Your task to perform on an android device: turn on wifi Image 0: 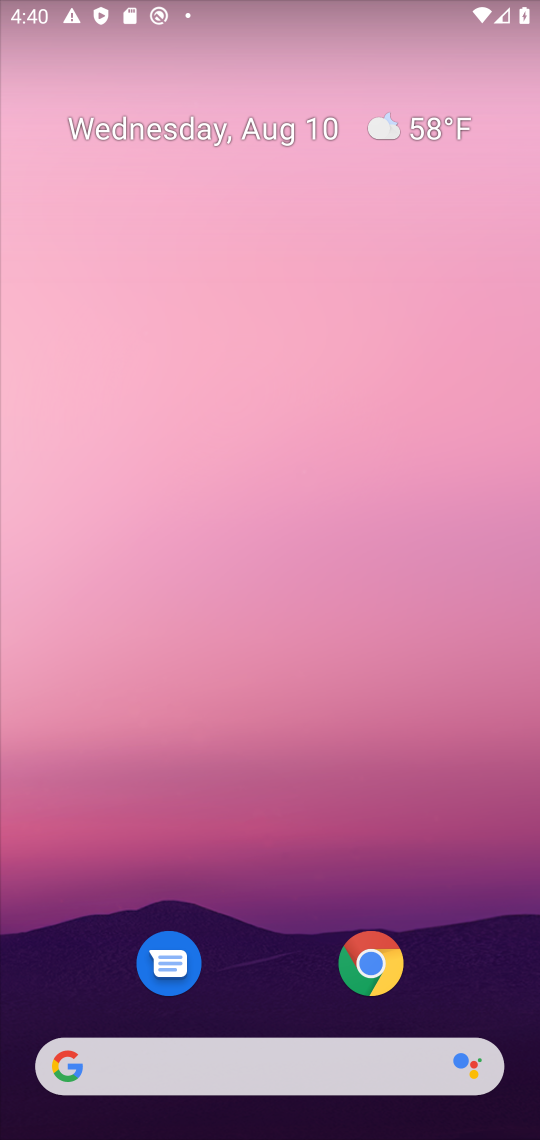
Step 0: drag from (236, 6) to (215, 657)
Your task to perform on an android device: turn on wifi Image 1: 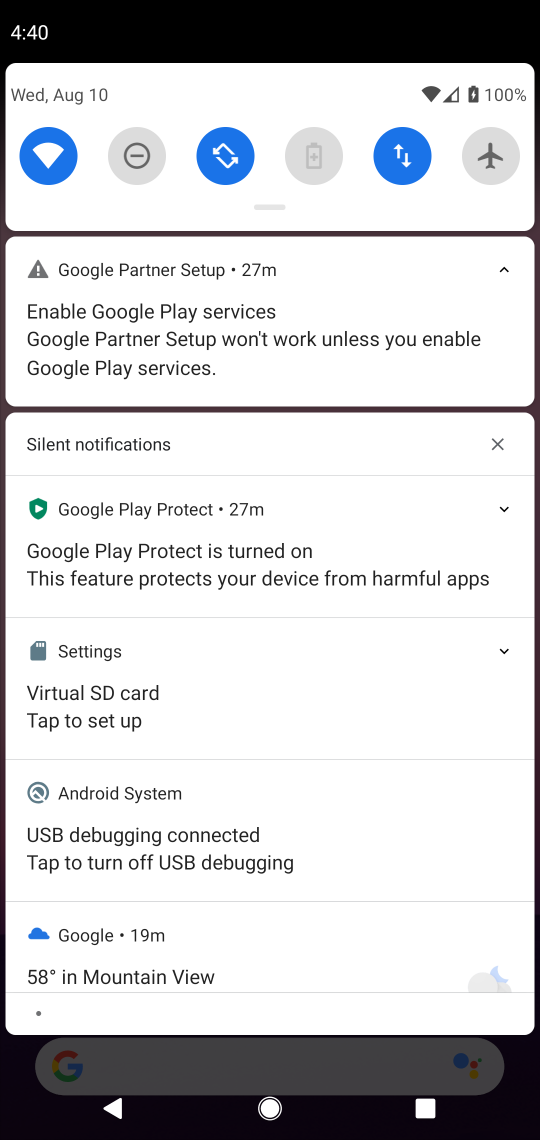
Step 1: task complete